Your task to perform on an android device: Go to ESPN.com Image 0: 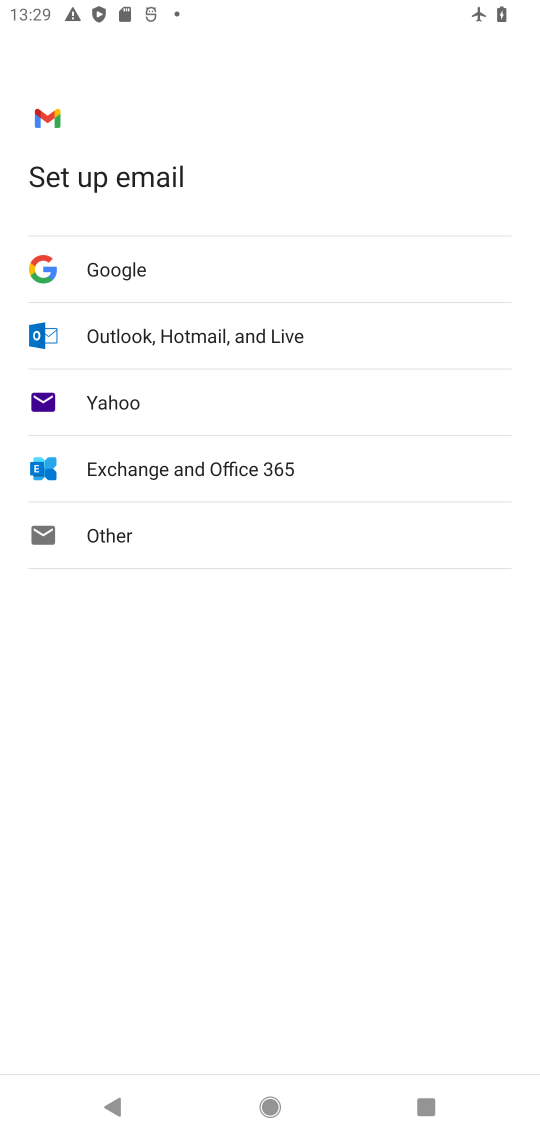
Step 0: drag from (297, 933) to (334, 655)
Your task to perform on an android device: Go to ESPN.com Image 1: 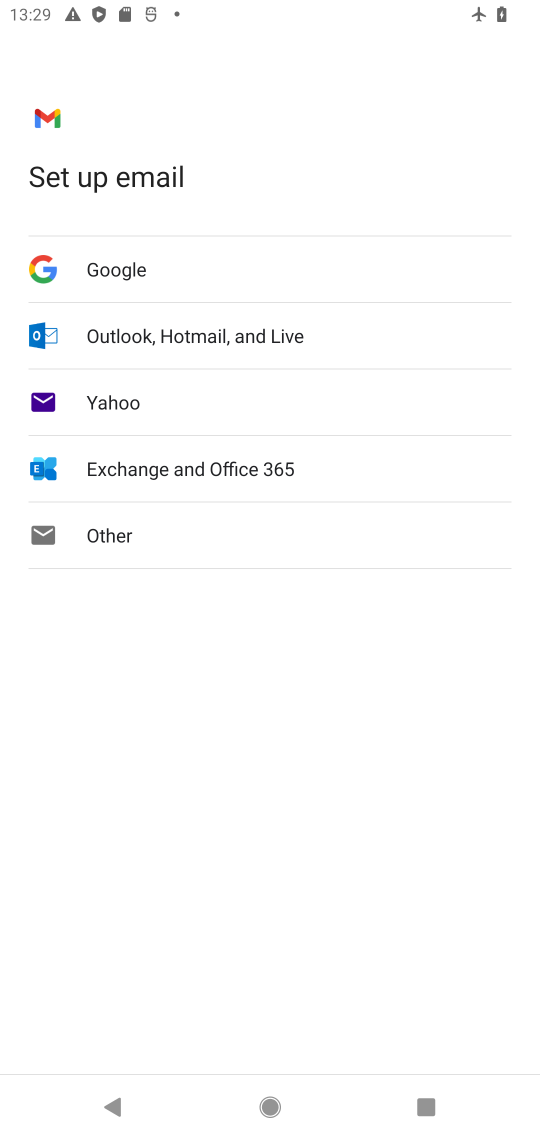
Step 1: press home button
Your task to perform on an android device: Go to ESPN.com Image 2: 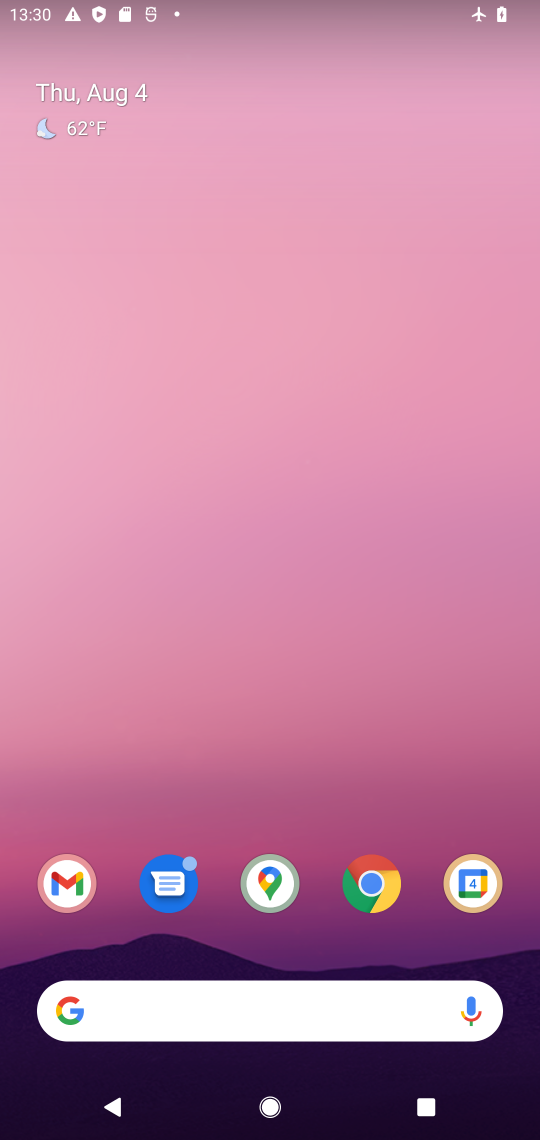
Step 2: click (370, 890)
Your task to perform on an android device: Go to ESPN.com Image 3: 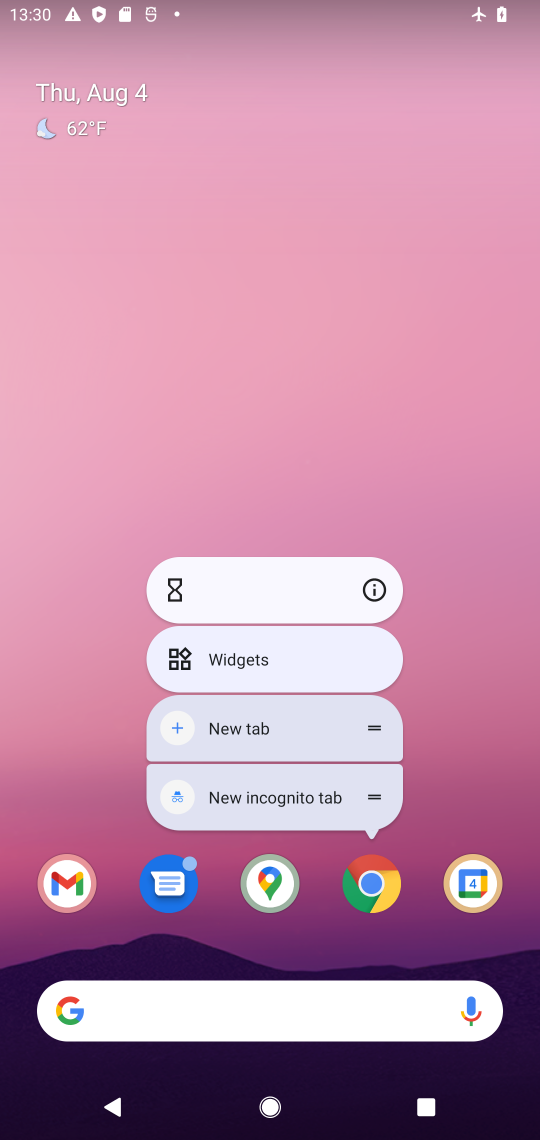
Step 3: click (378, 576)
Your task to perform on an android device: Go to ESPN.com Image 4: 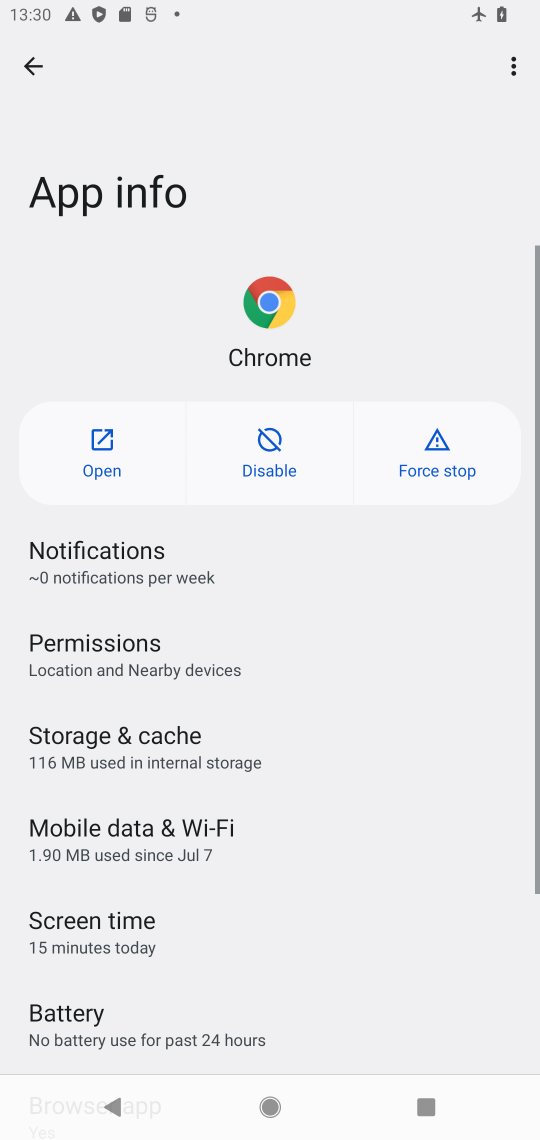
Step 4: click (95, 440)
Your task to perform on an android device: Go to ESPN.com Image 5: 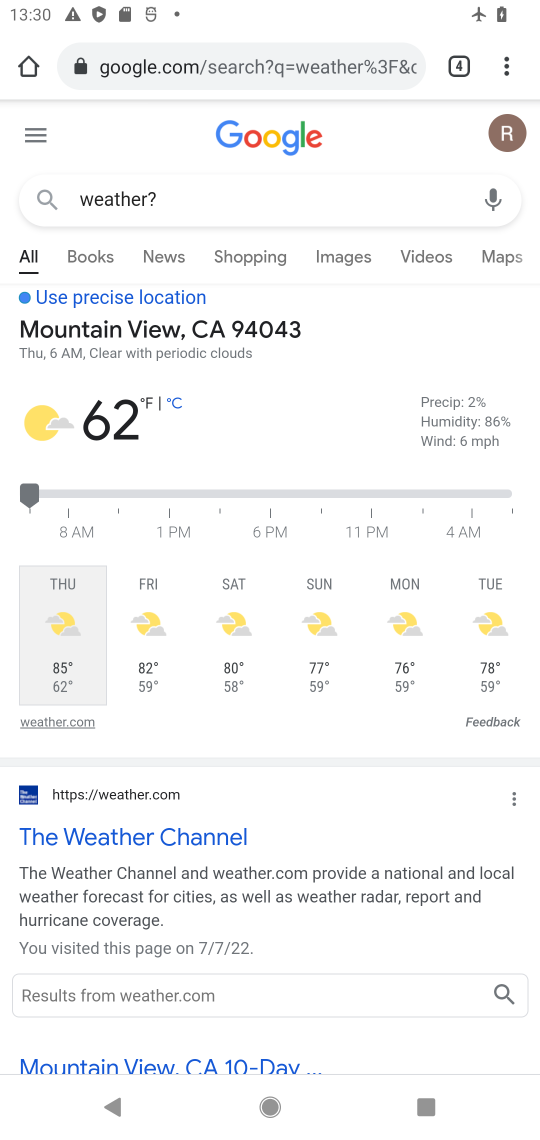
Step 5: click (219, 178)
Your task to perform on an android device: Go to ESPN.com Image 6: 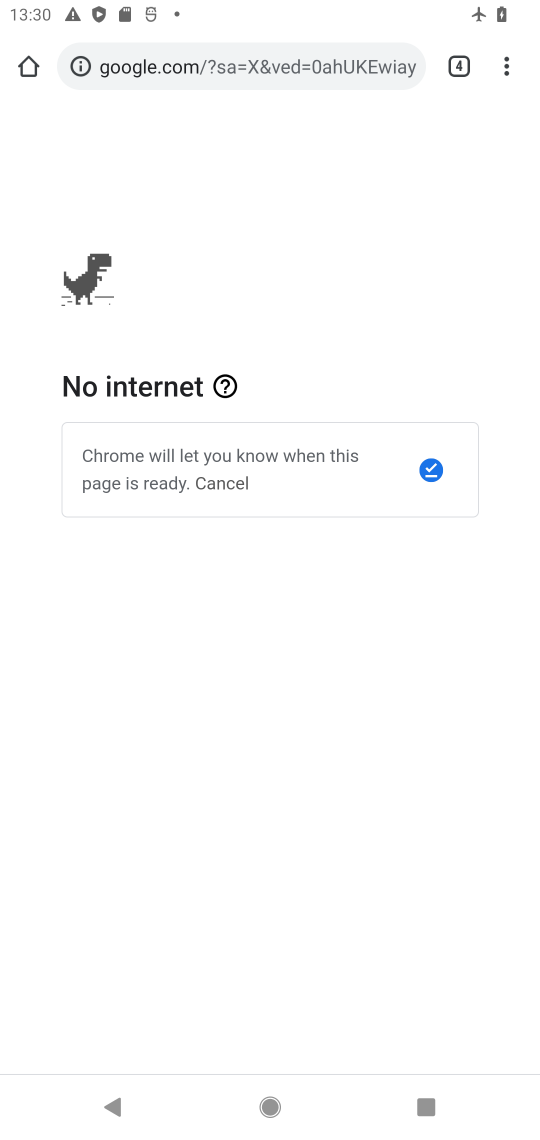
Step 6: click (227, 196)
Your task to perform on an android device: Go to ESPN.com Image 7: 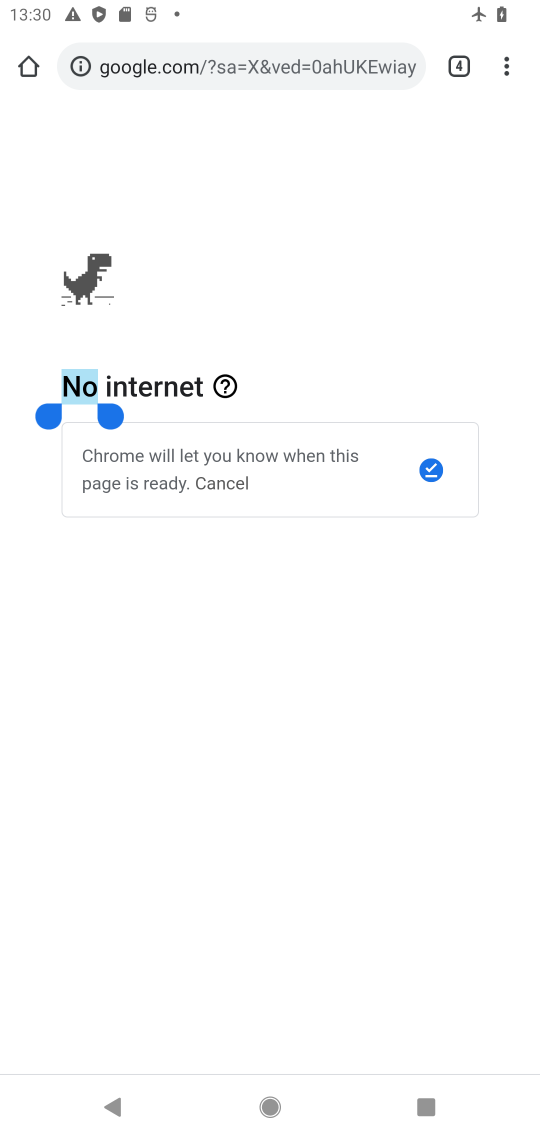
Step 7: click (346, 49)
Your task to perform on an android device: Go to ESPN.com Image 8: 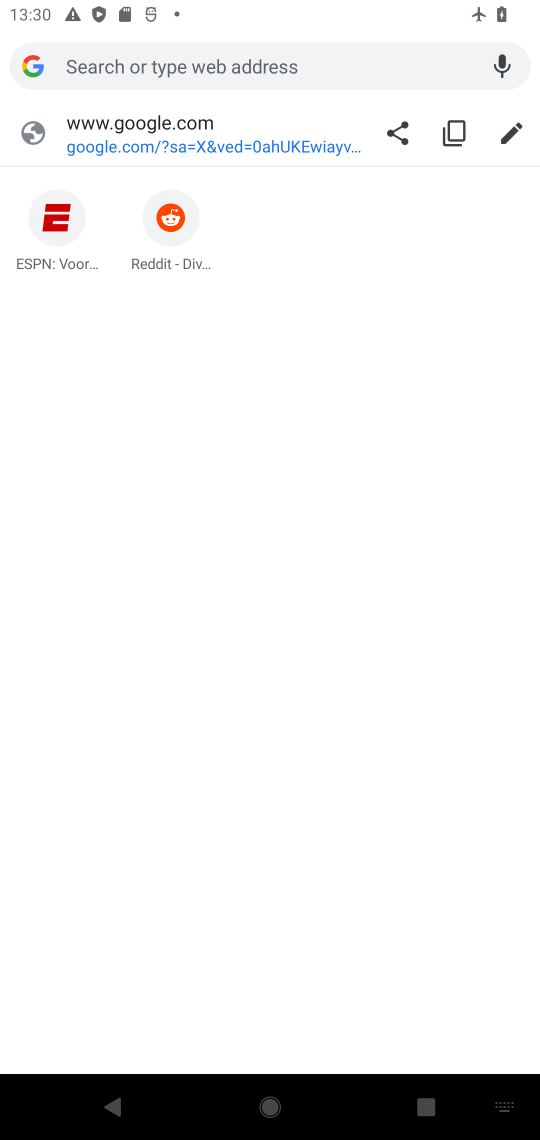
Step 8: type "ESPN.com"
Your task to perform on an android device: Go to ESPN.com Image 9: 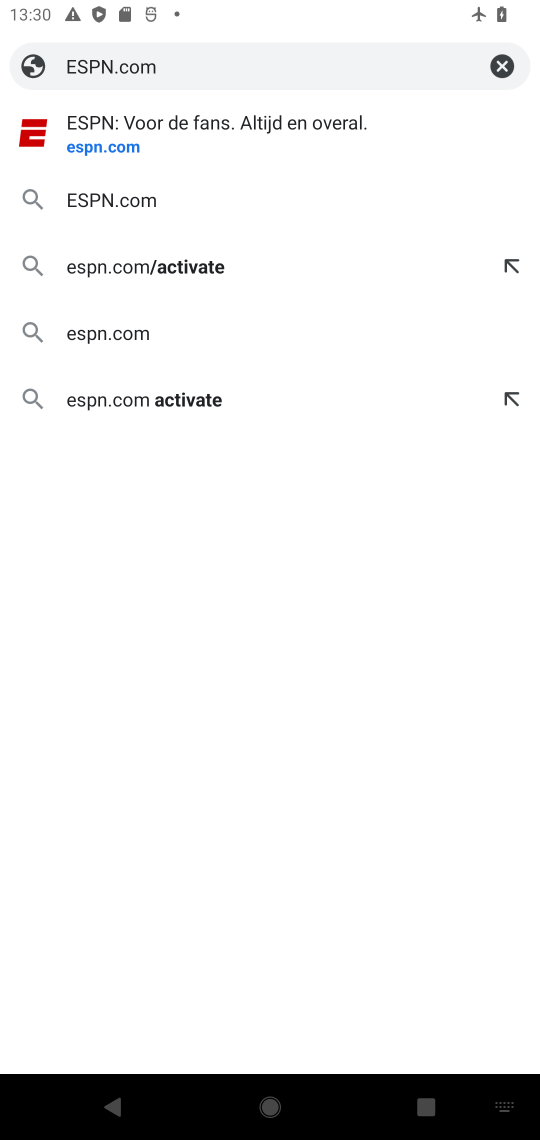
Step 9: click (118, 128)
Your task to perform on an android device: Go to ESPN.com Image 10: 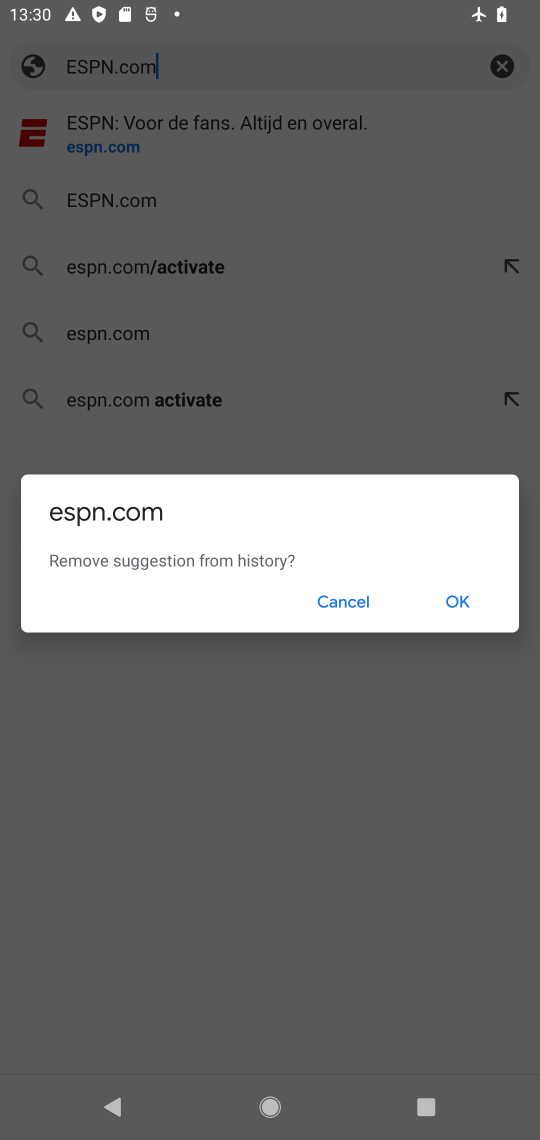
Step 10: click (450, 611)
Your task to perform on an android device: Go to ESPN.com Image 11: 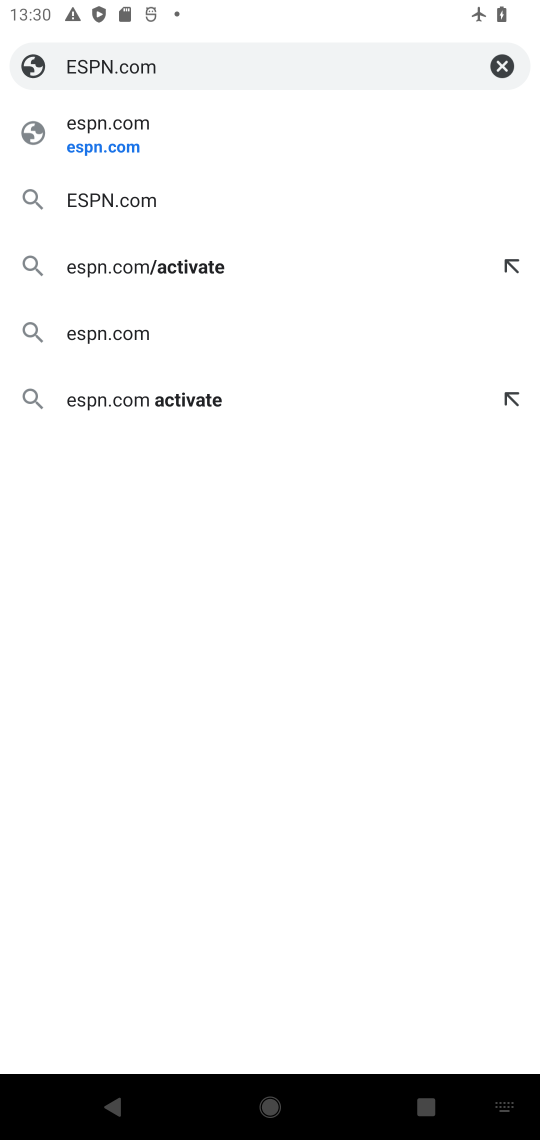
Step 11: task complete